Your task to perform on an android device: turn on the 12-hour format for clock Image 0: 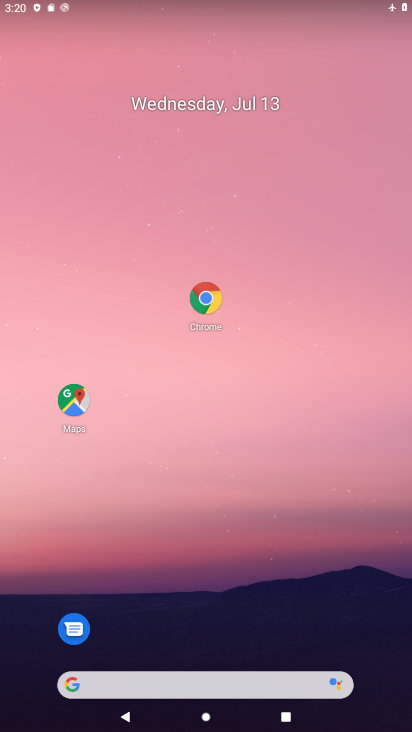
Step 0: drag from (202, 591) to (284, 180)
Your task to perform on an android device: turn on the 12-hour format for clock Image 1: 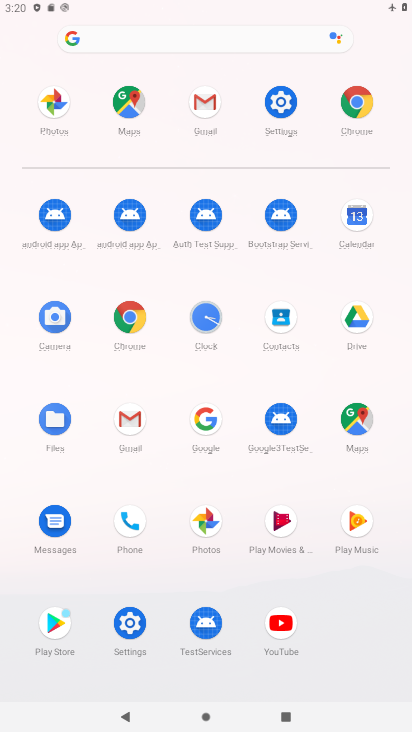
Step 1: click (201, 305)
Your task to perform on an android device: turn on the 12-hour format for clock Image 2: 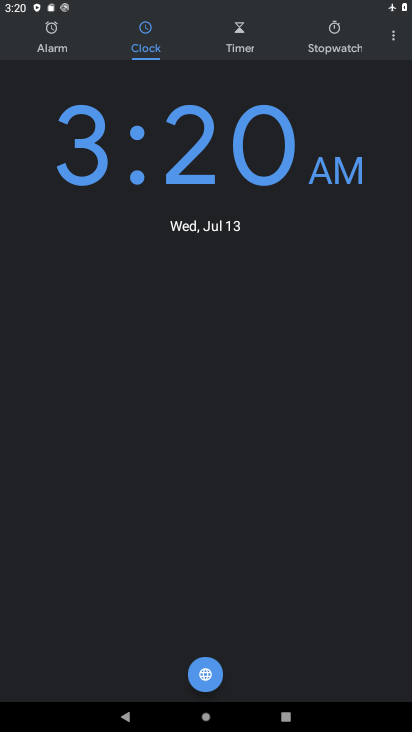
Step 2: click (400, 40)
Your task to perform on an android device: turn on the 12-hour format for clock Image 3: 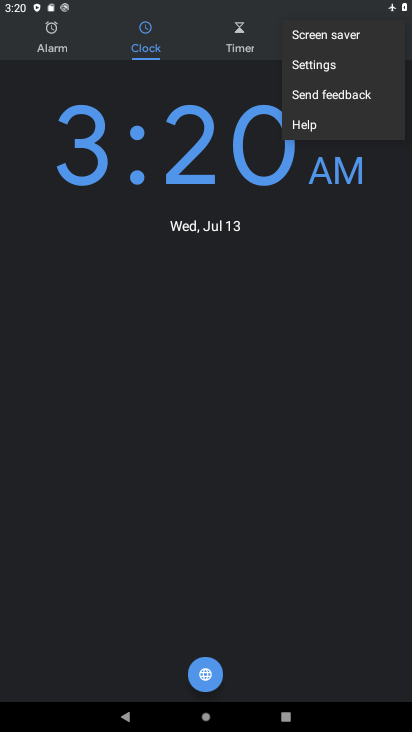
Step 3: click (331, 58)
Your task to perform on an android device: turn on the 12-hour format for clock Image 4: 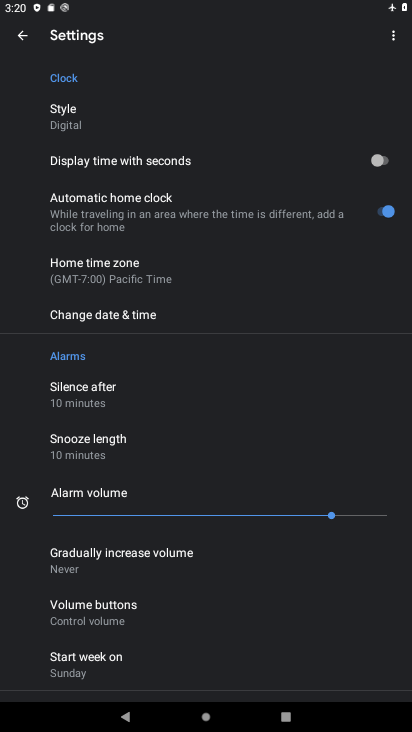
Step 4: click (121, 305)
Your task to perform on an android device: turn on the 12-hour format for clock Image 5: 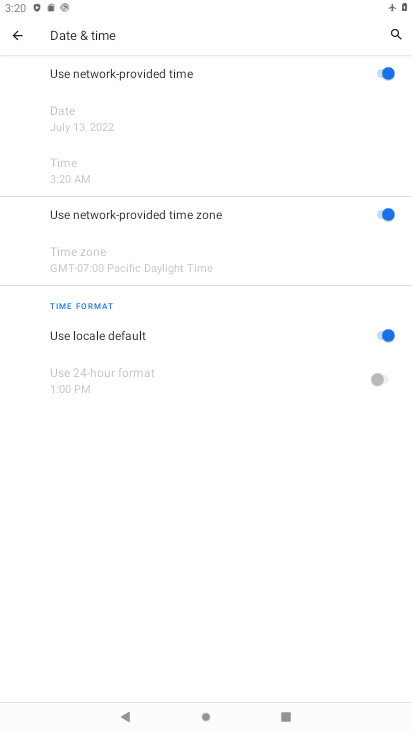
Step 5: click (383, 332)
Your task to perform on an android device: turn on the 12-hour format for clock Image 6: 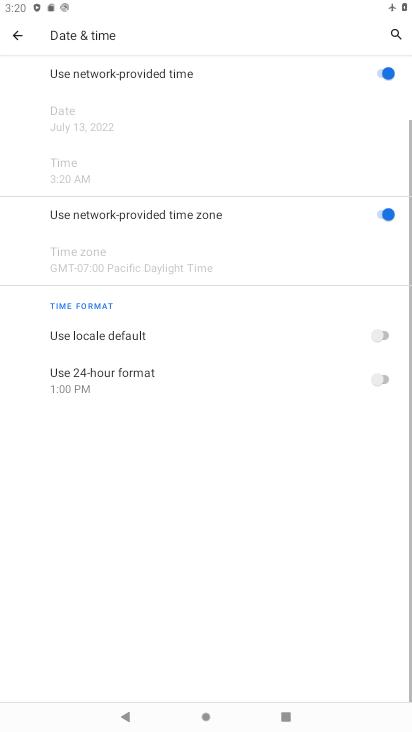
Step 6: click (387, 384)
Your task to perform on an android device: turn on the 12-hour format for clock Image 7: 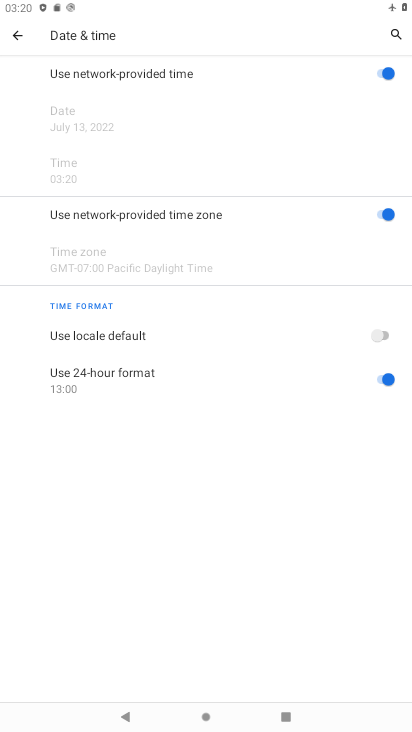
Step 7: task complete